Your task to perform on an android device: Do I have any events this weekend? Image 0: 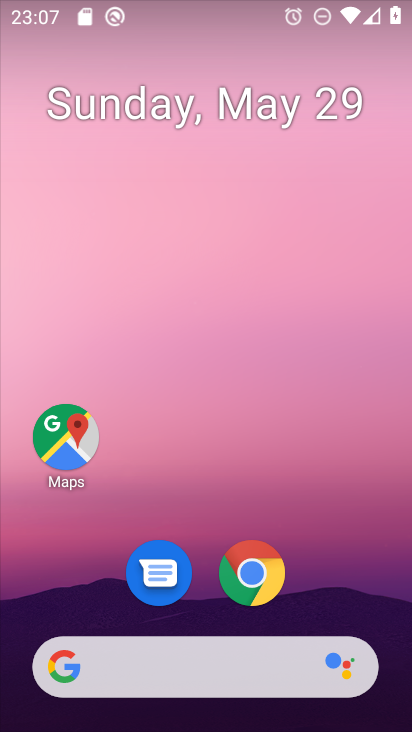
Step 0: drag from (218, 472) to (274, 19)
Your task to perform on an android device: Do I have any events this weekend? Image 1: 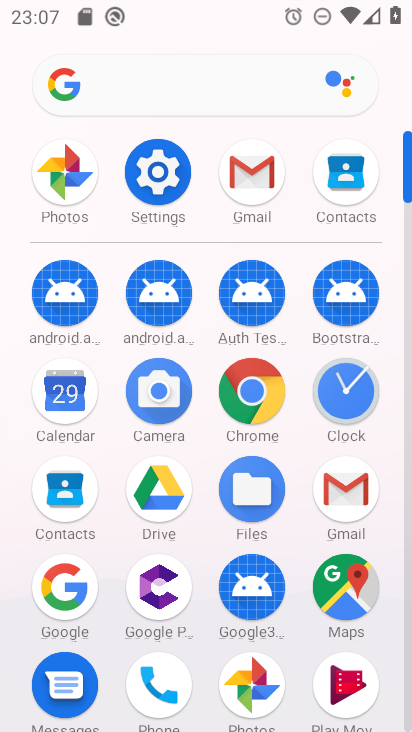
Step 1: click (69, 394)
Your task to perform on an android device: Do I have any events this weekend? Image 2: 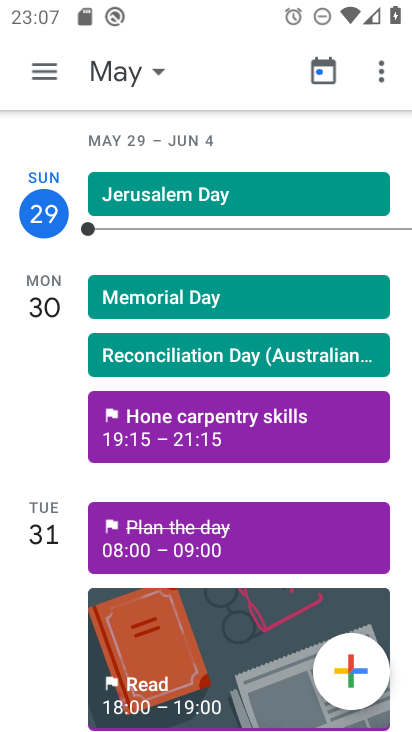
Step 2: task complete